Your task to perform on an android device: turn on sleep mode Image 0: 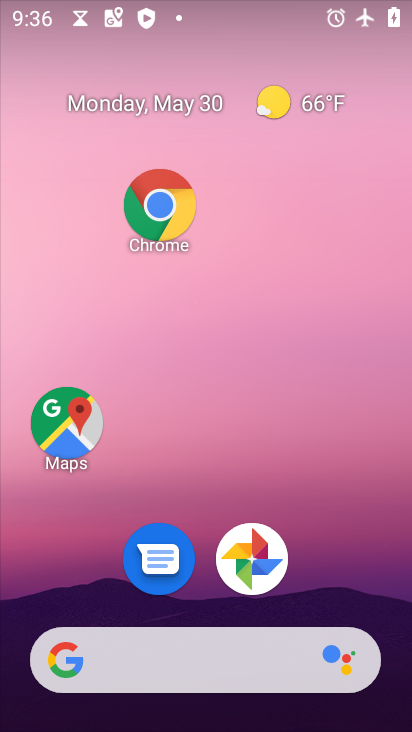
Step 0: drag from (295, 575) to (297, 42)
Your task to perform on an android device: turn on sleep mode Image 1: 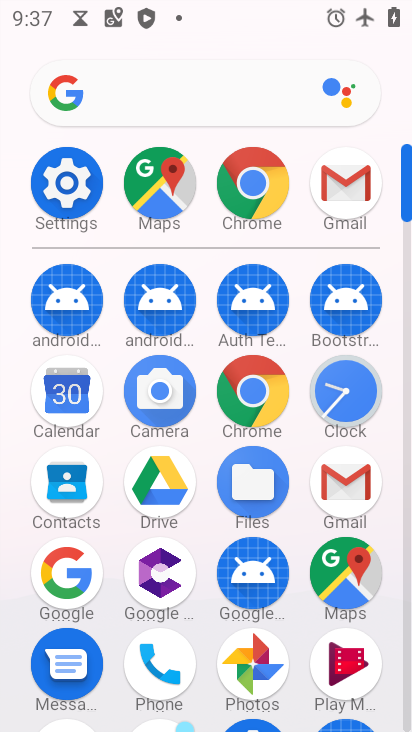
Step 1: drag from (217, 464) to (194, 60)
Your task to perform on an android device: turn on sleep mode Image 2: 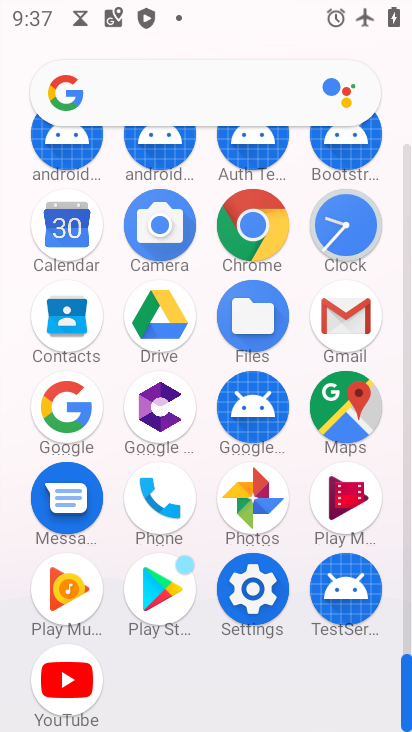
Step 2: drag from (148, 341) to (148, 107)
Your task to perform on an android device: turn on sleep mode Image 3: 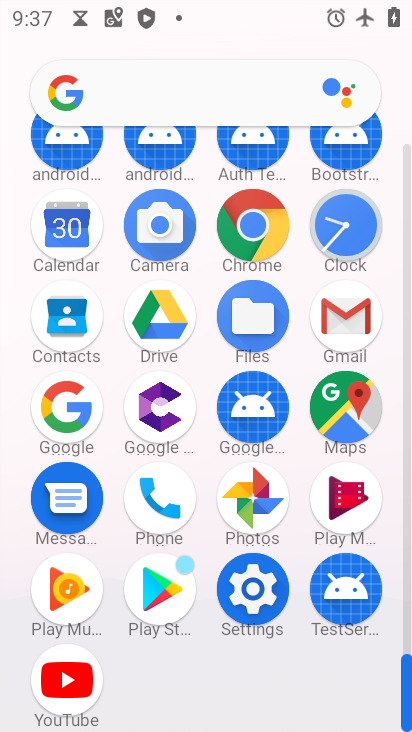
Step 3: click (244, 622)
Your task to perform on an android device: turn on sleep mode Image 4: 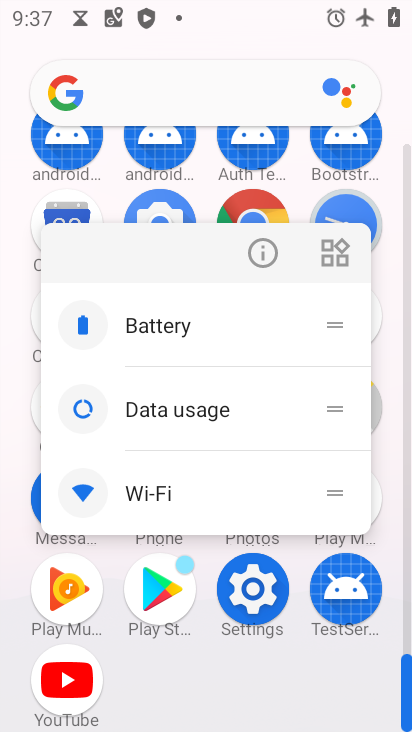
Step 4: click (247, 574)
Your task to perform on an android device: turn on sleep mode Image 5: 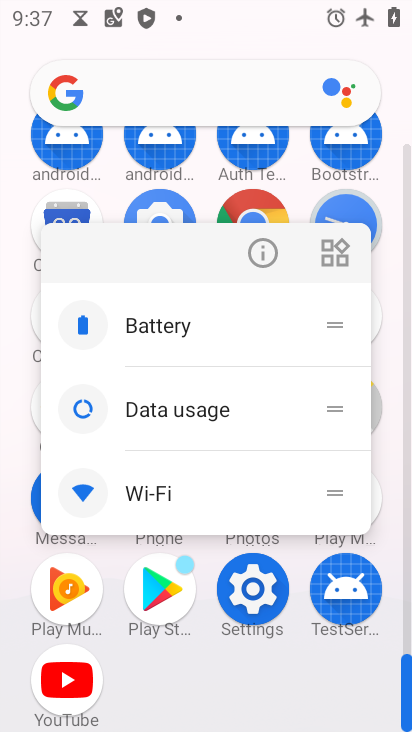
Step 5: click (246, 574)
Your task to perform on an android device: turn on sleep mode Image 6: 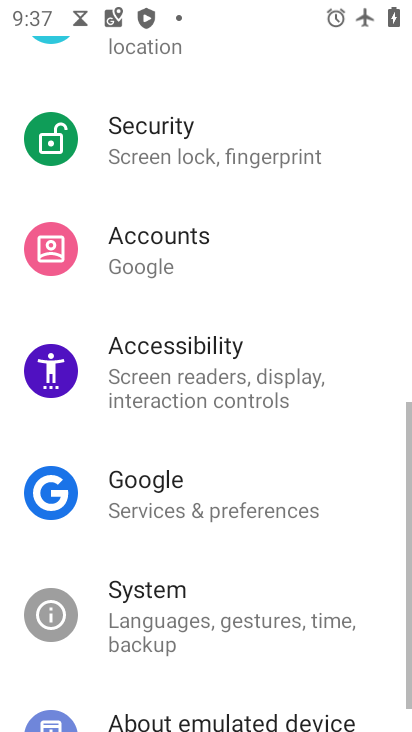
Step 6: click (249, 581)
Your task to perform on an android device: turn on sleep mode Image 7: 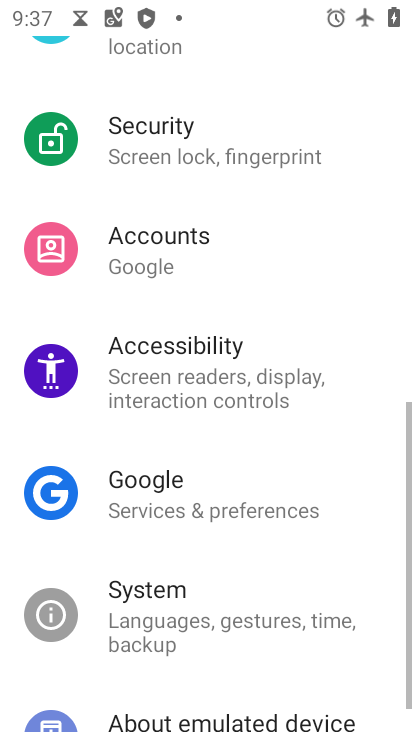
Step 7: click (249, 581)
Your task to perform on an android device: turn on sleep mode Image 8: 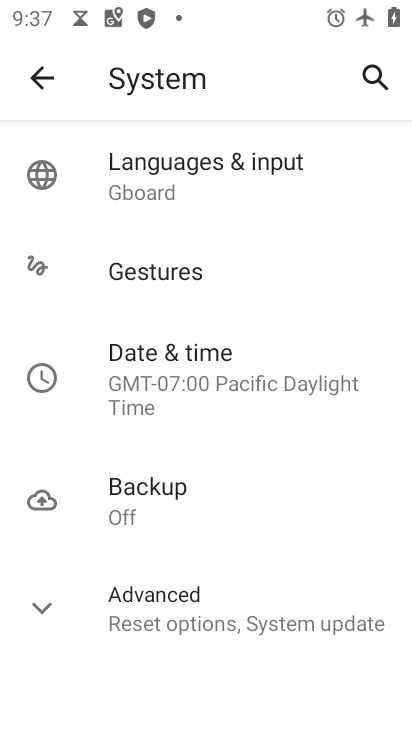
Step 8: click (35, 72)
Your task to perform on an android device: turn on sleep mode Image 9: 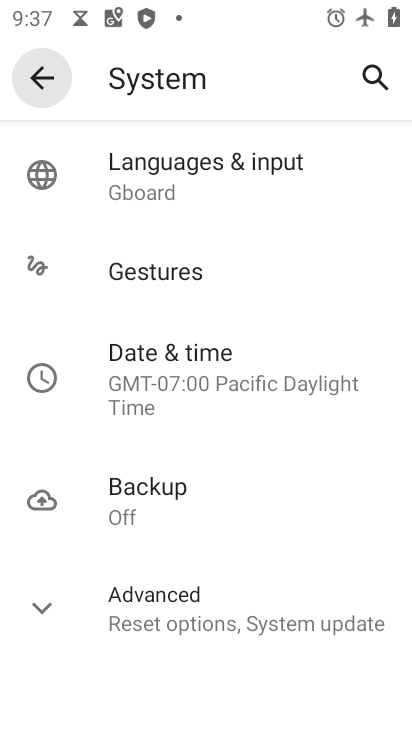
Step 9: click (36, 73)
Your task to perform on an android device: turn on sleep mode Image 10: 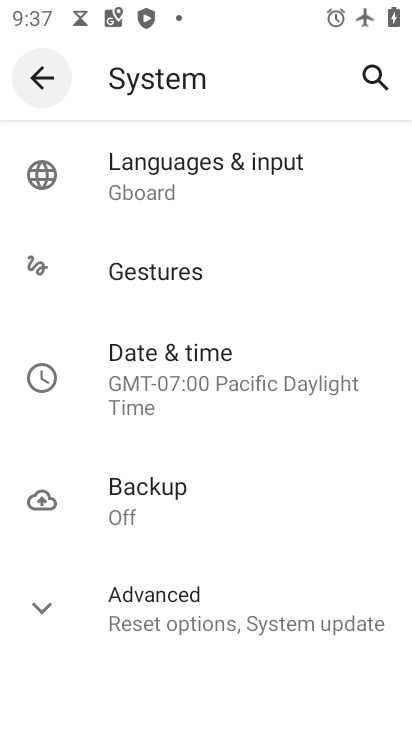
Step 10: click (37, 74)
Your task to perform on an android device: turn on sleep mode Image 11: 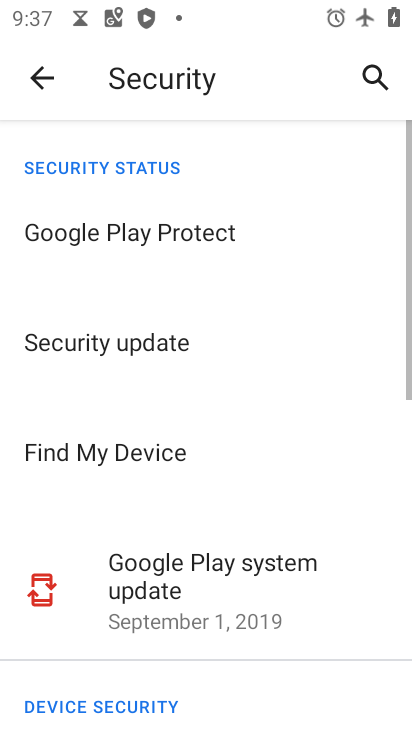
Step 11: click (42, 78)
Your task to perform on an android device: turn on sleep mode Image 12: 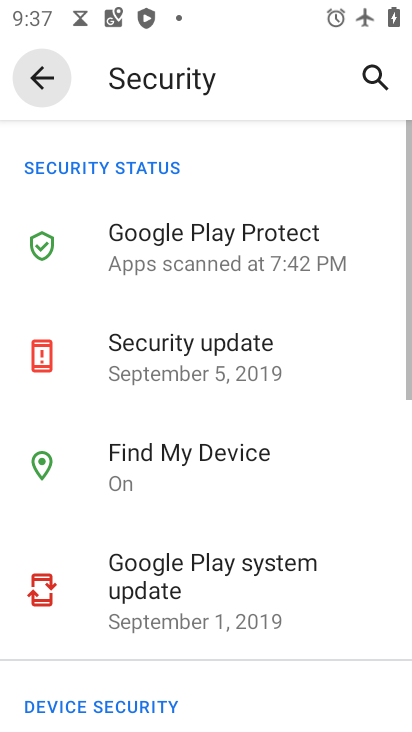
Step 12: click (42, 78)
Your task to perform on an android device: turn on sleep mode Image 13: 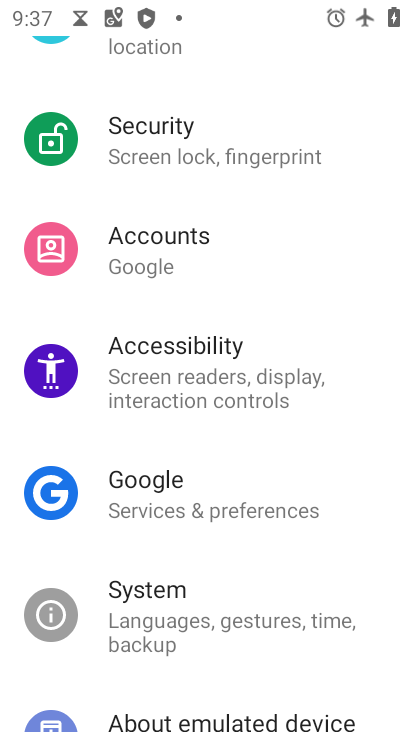
Step 13: drag from (146, 166) to (172, 547)
Your task to perform on an android device: turn on sleep mode Image 14: 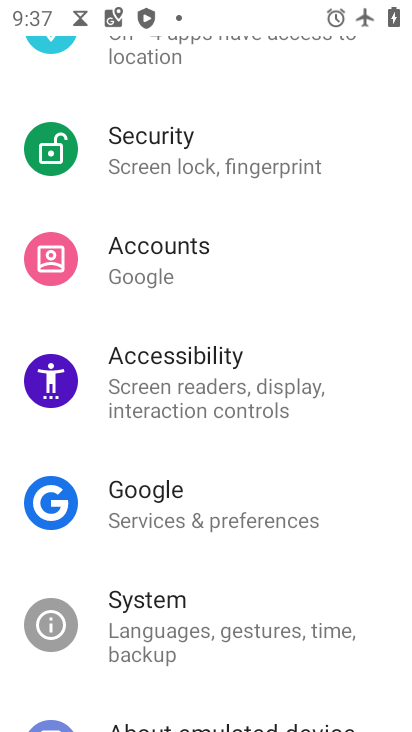
Step 14: drag from (167, 246) to (170, 607)
Your task to perform on an android device: turn on sleep mode Image 15: 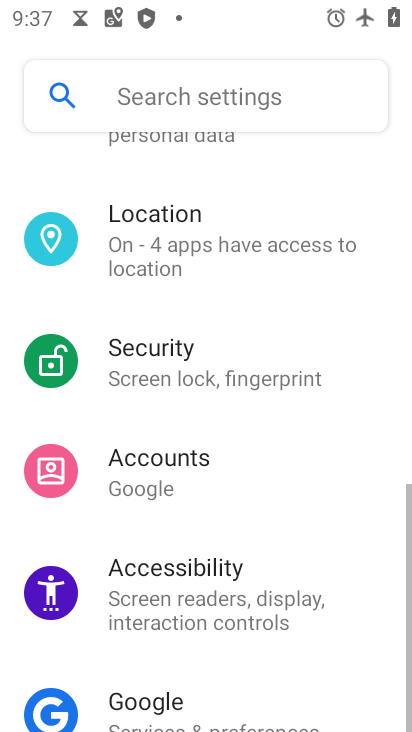
Step 15: drag from (125, 243) to (188, 584)
Your task to perform on an android device: turn on sleep mode Image 16: 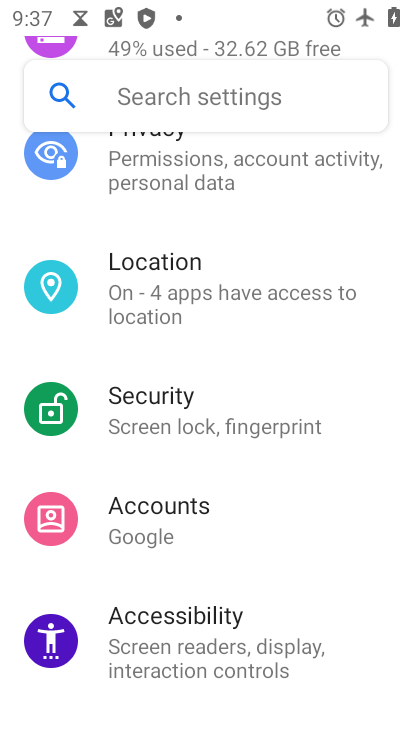
Step 16: drag from (147, 197) to (201, 580)
Your task to perform on an android device: turn on sleep mode Image 17: 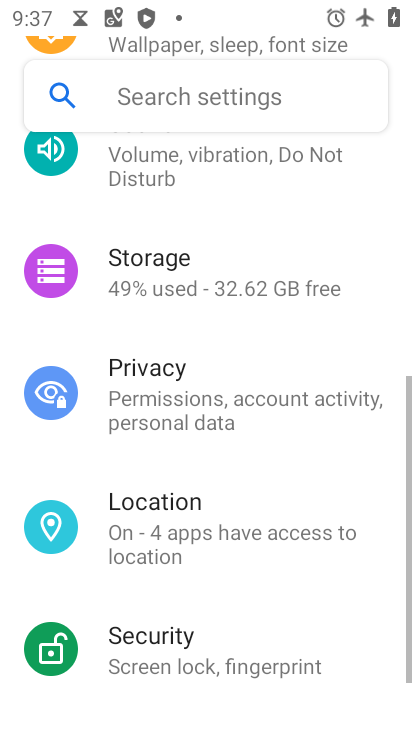
Step 17: drag from (184, 280) to (183, 556)
Your task to perform on an android device: turn on sleep mode Image 18: 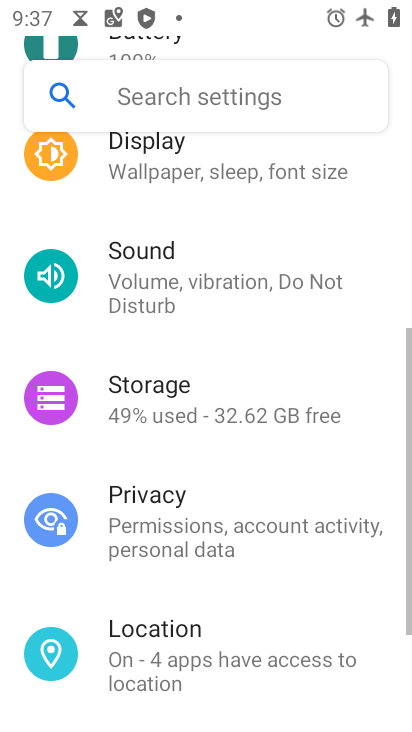
Step 18: drag from (156, 273) to (173, 585)
Your task to perform on an android device: turn on sleep mode Image 19: 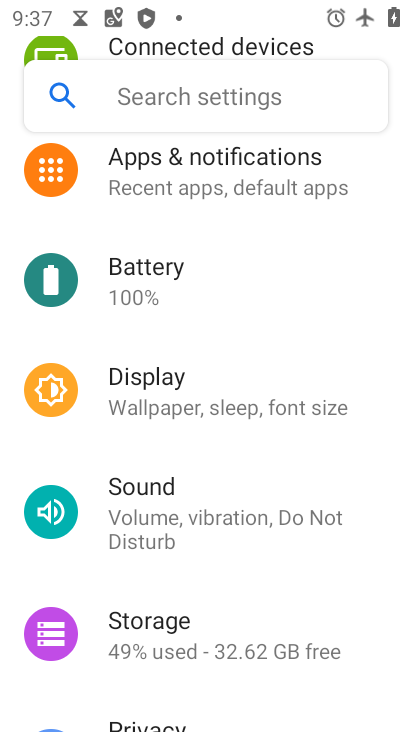
Step 19: click (162, 401)
Your task to perform on an android device: turn on sleep mode Image 20: 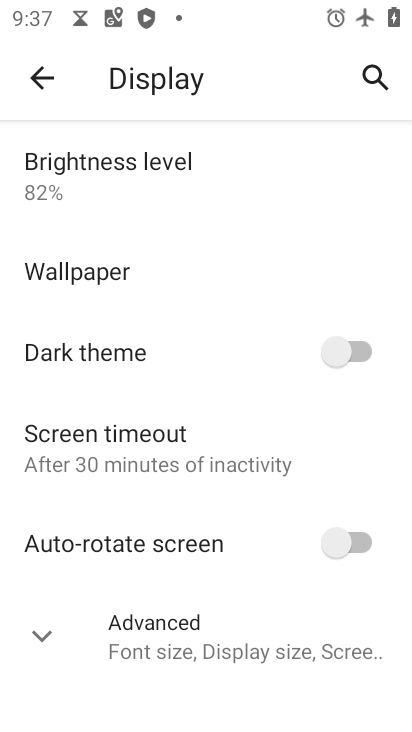
Step 20: task complete